Your task to perform on an android device: delete a single message in the gmail app Image 0: 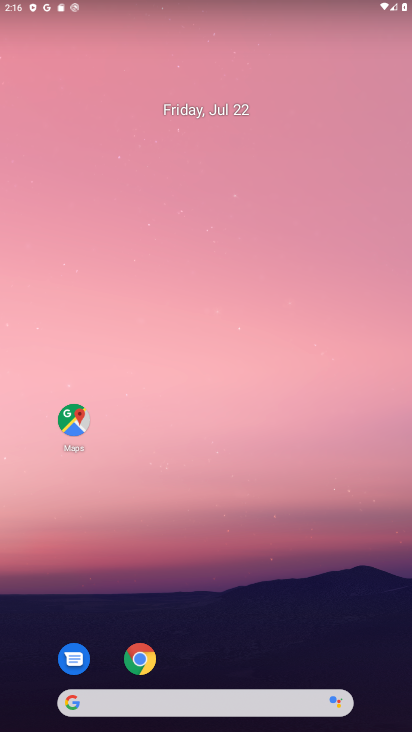
Step 0: drag from (200, 524) to (194, 99)
Your task to perform on an android device: delete a single message in the gmail app Image 1: 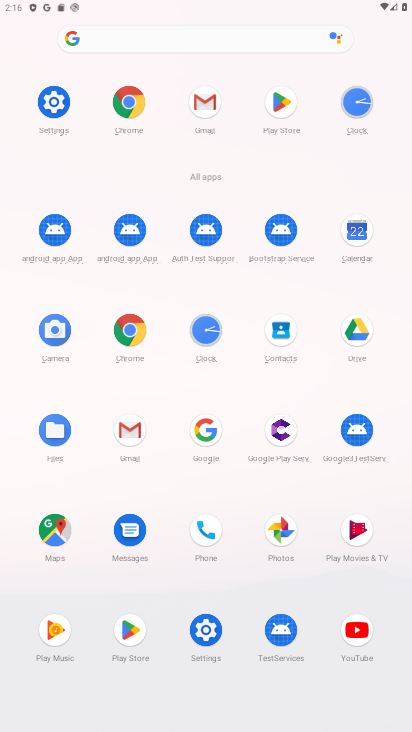
Step 1: click (208, 116)
Your task to perform on an android device: delete a single message in the gmail app Image 2: 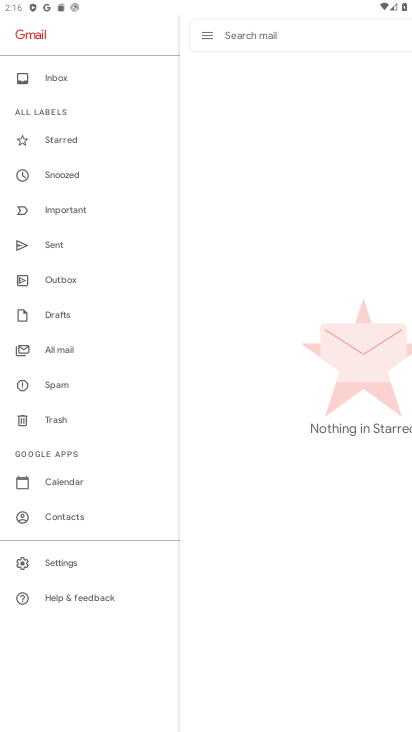
Step 2: click (64, 352)
Your task to perform on an android device: delete a single message in the gmail app Image 3: 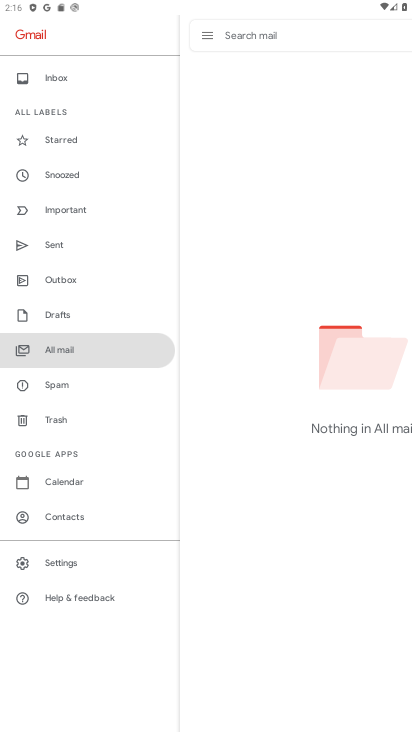
Step 3: task complete